Your task to perform on an android device: Open Yahoo.com Image 0: 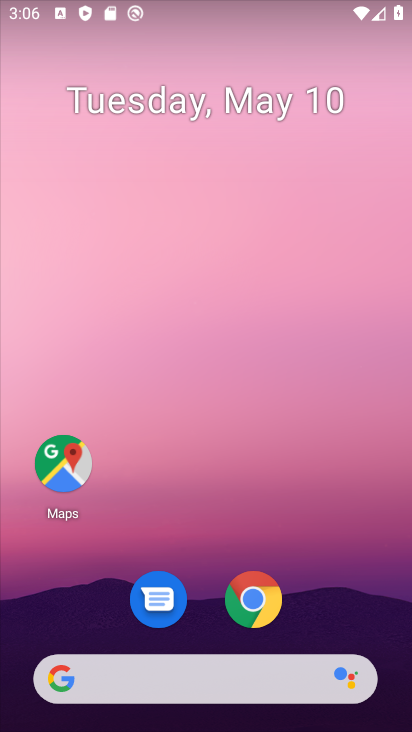
Step 0: drag from (292, 626) to (225, 134)
Your task to perform on an android device: Open Yahoo.com Image 1: 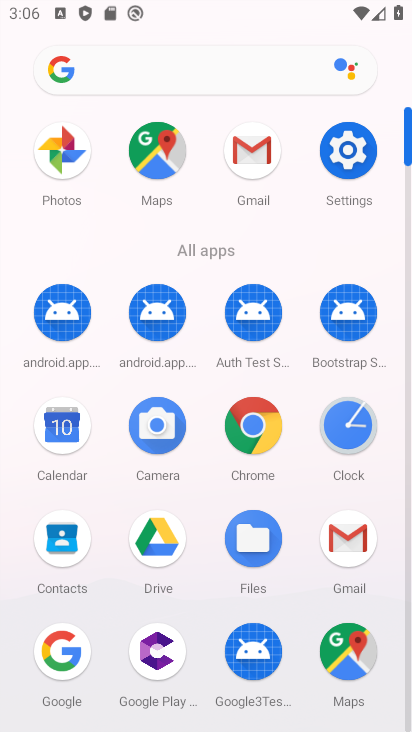
Step 1: drag from (250, 500) to (236, 140)
Your task to perform on an android device: Open Yahoo.com Image 2: 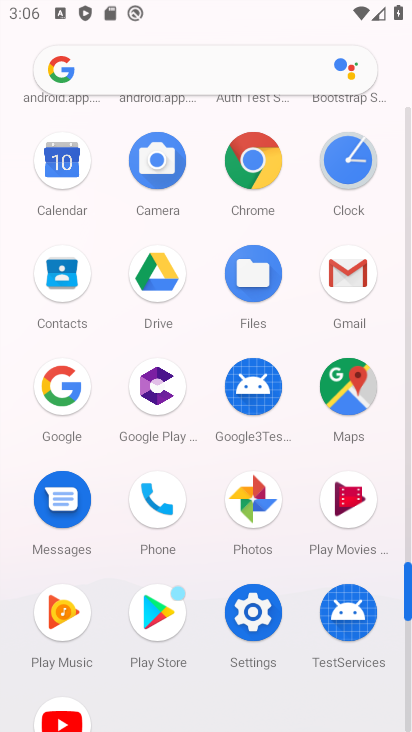
Step 2: click (275, 147)
Your task to perform on an android device: Open Yahoo.com Image 3: 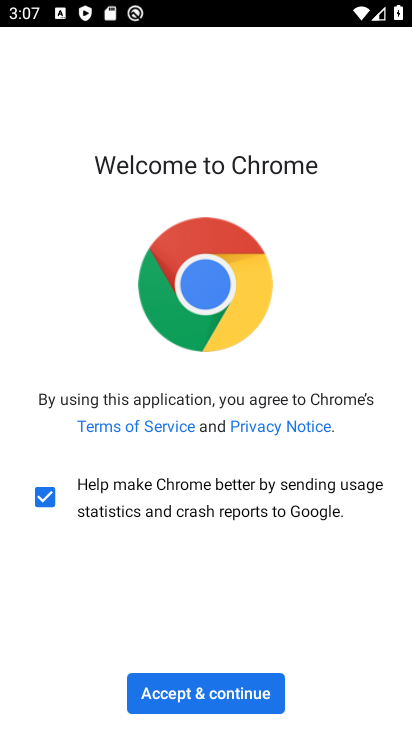
Step 3: click (190, 710)
Your task to perform on an android device: Open Yahoo.com Image 4: 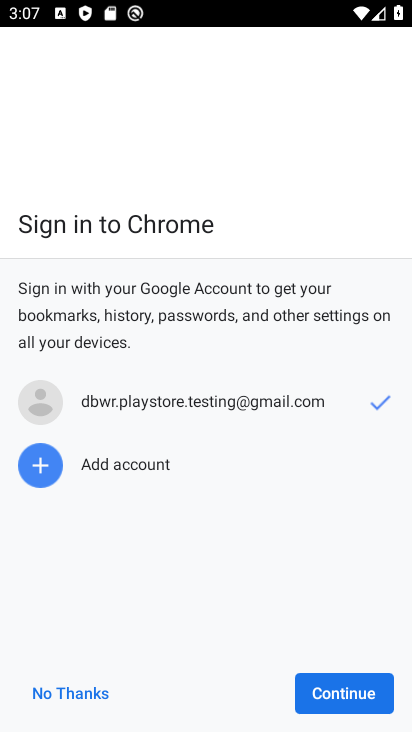
Step 4: click (307, 683)
Your task to perform on an android device: Open Yahoo.com Image 5: 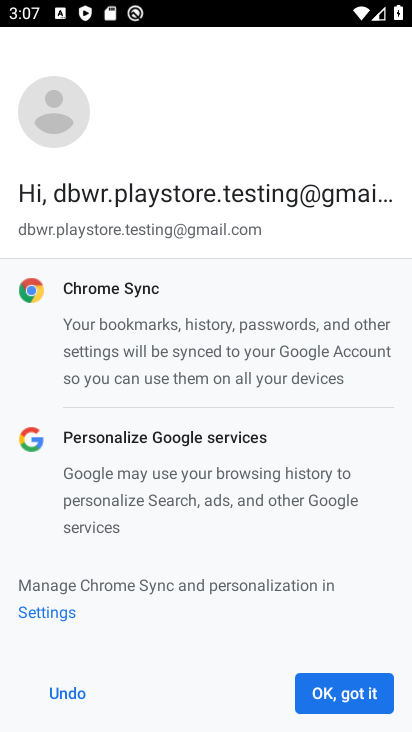
Step 5: click (327, 699)
Your task to perform on an android device: Open Yahoo.com Image 6: 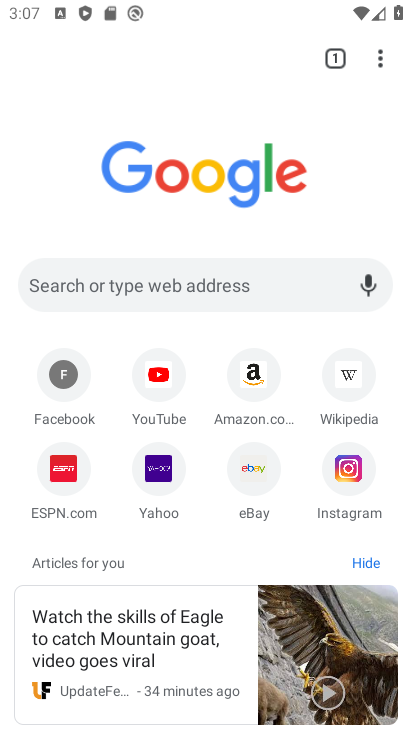
Step 6: click (174, 489)
Your task to perform on an android device: Open Yahoo.com Image 7: 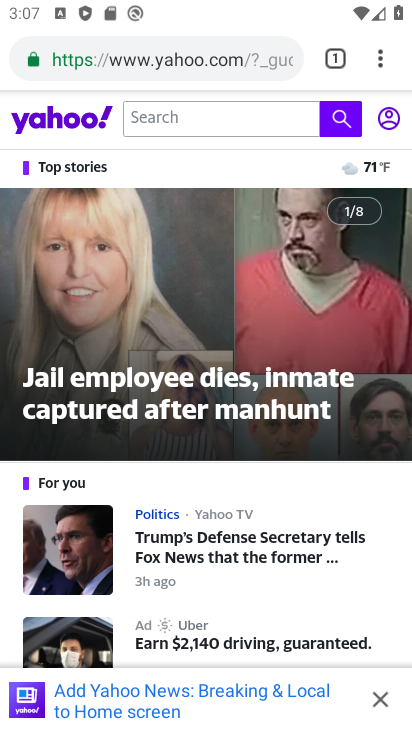
Step 7: task complete